Your task to perform on an android device: see creations saved in the google photos Image 0: 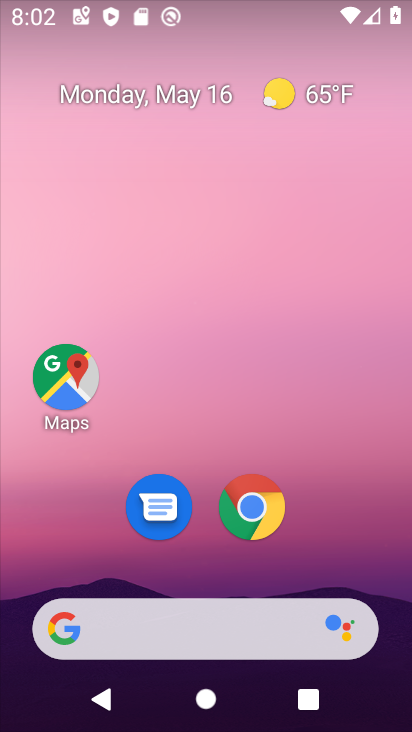
Step 0: drag from (207, 569) to (232, 71)
Your task to perform on an android device: see creations saved in the google photos Image 1: 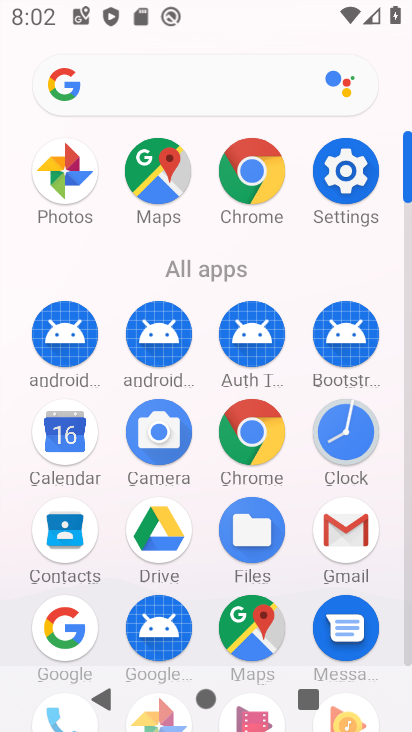
Step 1: click (64, 173)
Your task to perform on an android device: see creations saved in the google photos Image 2: 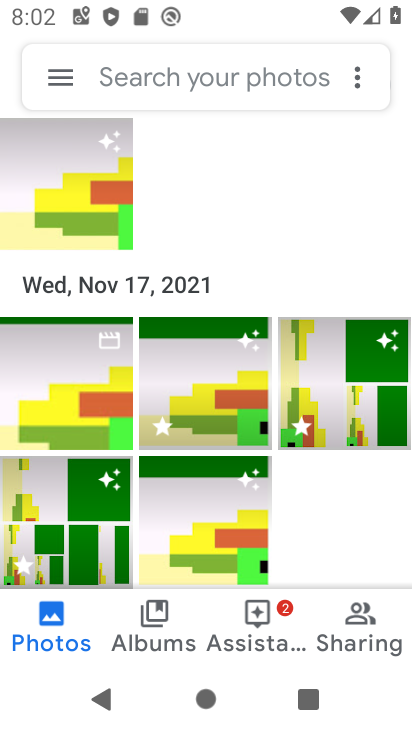
Step 2: click (156, 72)
Your task to perform on an android device: see creations saved in the google photos Image 3: 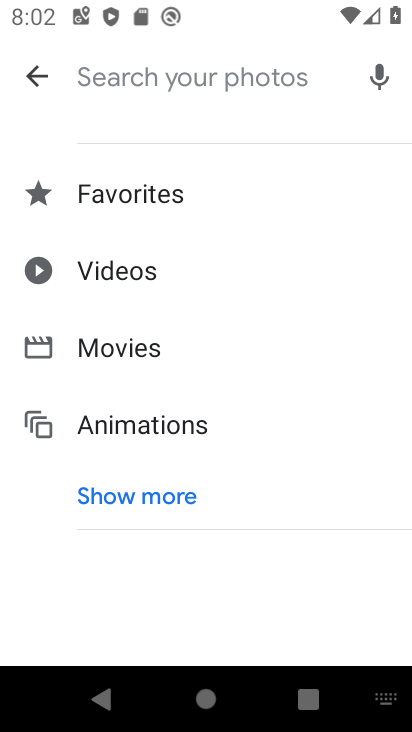
Step 3: click (103, 493)
Your task to perform on an android device: see creations saved in the google photos Image 4: 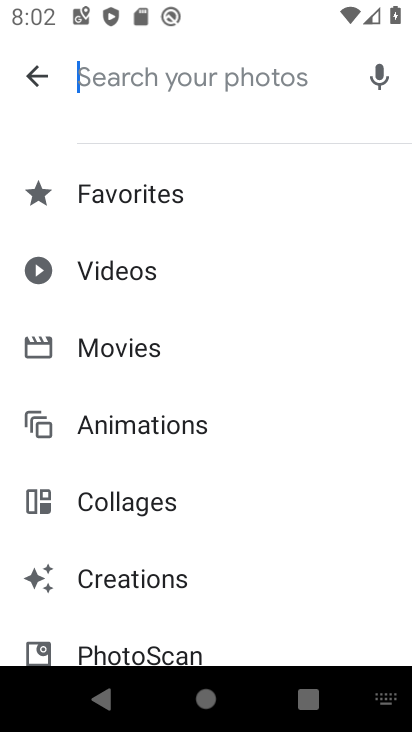
Step 4: click (143, 569)
Your task to perform on an android device: see creations saved in the google photos Image 5: 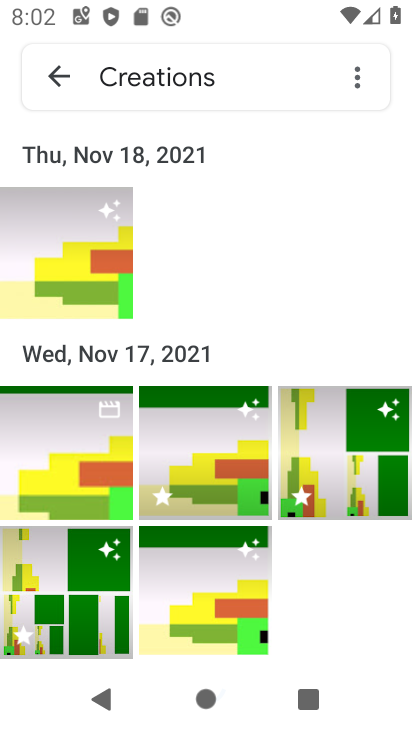
Step 5: task complete